Your task to perform on an android device: What's the weather today? Image 0: 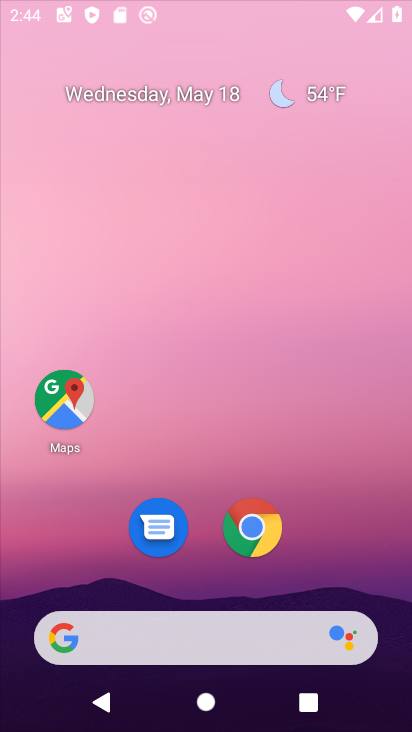
Step 0: drag from (197, 597) to (133, 98)
Your task to perform on an android device: What's the weather today? Image 1: 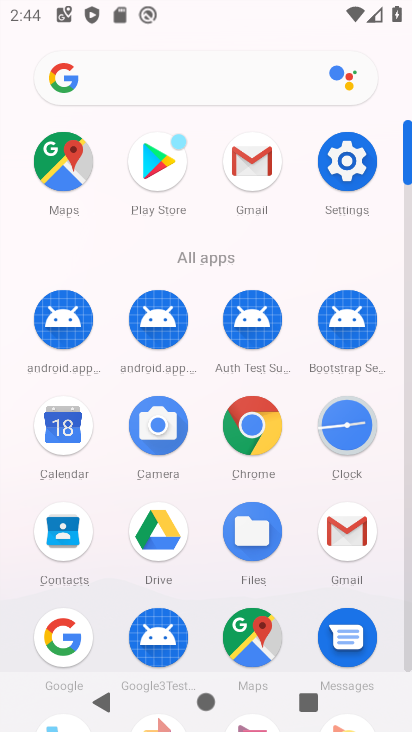
Step 1: drag from (217, 534) to (204, 196)
Your task to perform on an android device: What's the weather today? Image 2: 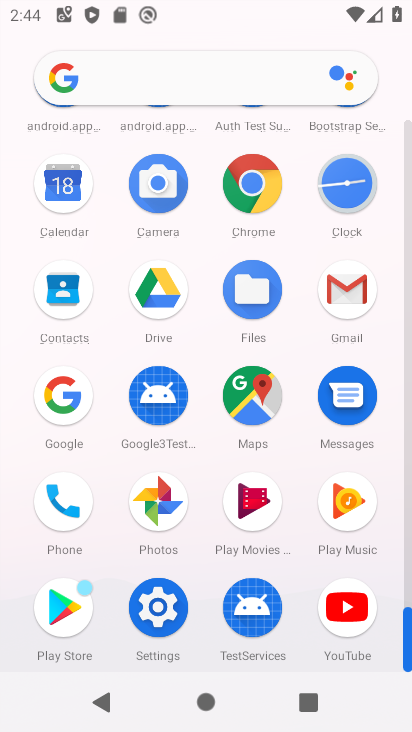
Step 2: drag from (216, 256) to (201, 606)
Your task to perform on an android device: What's the weather today? Image 3: 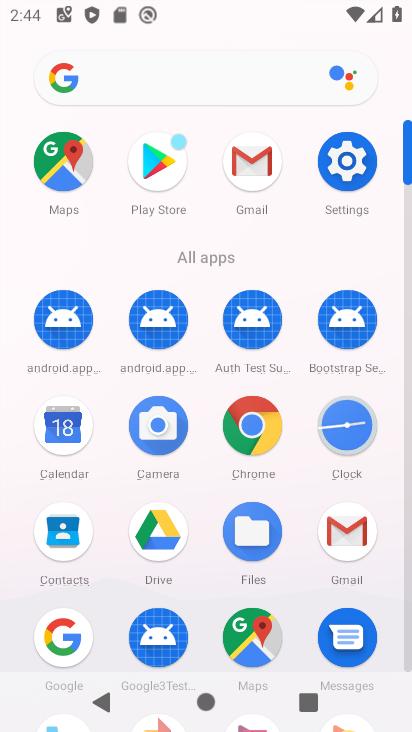
Step 3: drag from (102, 570) to (102, 262)
Your task to perform on an android device: What's the weather today? Image 4: 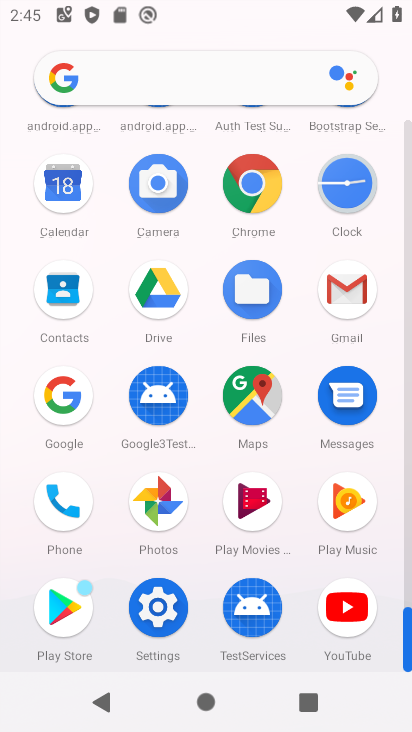
Step 4: click (60, 403)
Your task to perform on an android device: What's the weather today? Image 5: 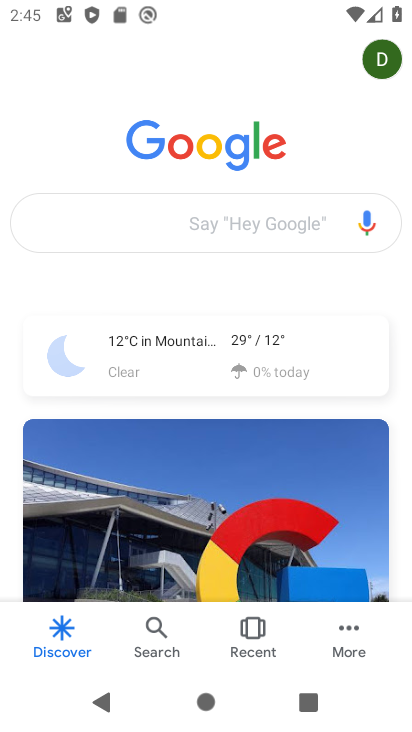
Step 5: click (159, 214)
Your task to perform on an android device: What's the weather today? Image 6: 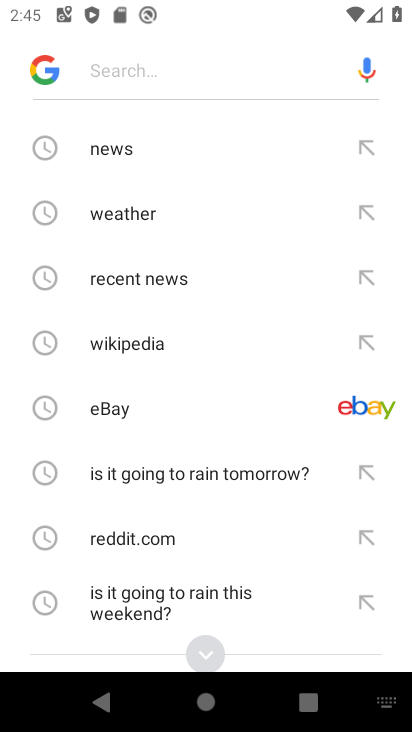
Step 6: click (105, 203)
Your task to perform on an android device: What's the weather today? Image 7: 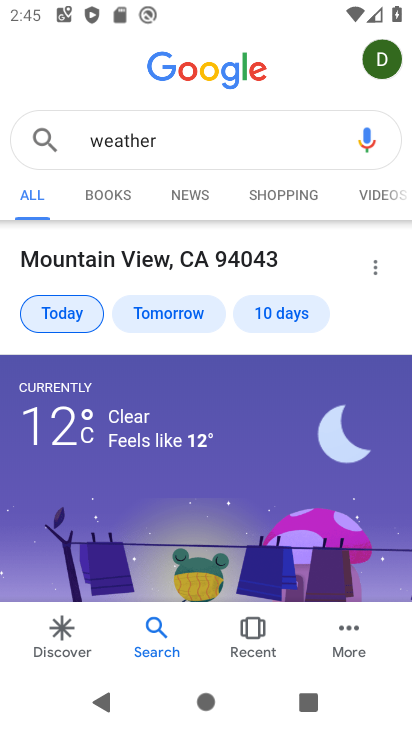
Step 7: task complete